Your task to perform on an android device: Open network settings Image 0: 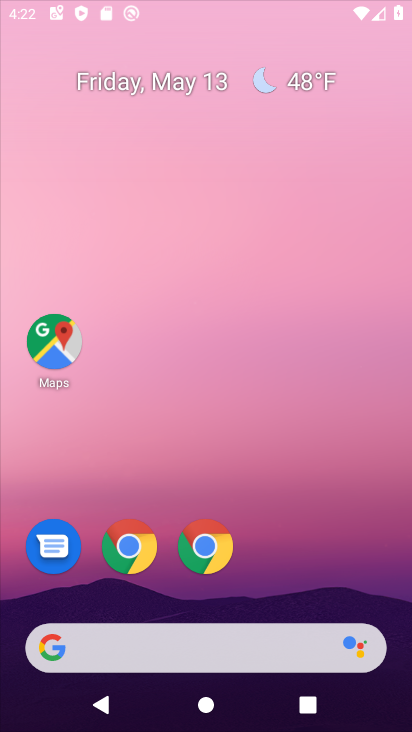
Step 0: press back button
Your task to perform on an android device: Open network settings Image 1: 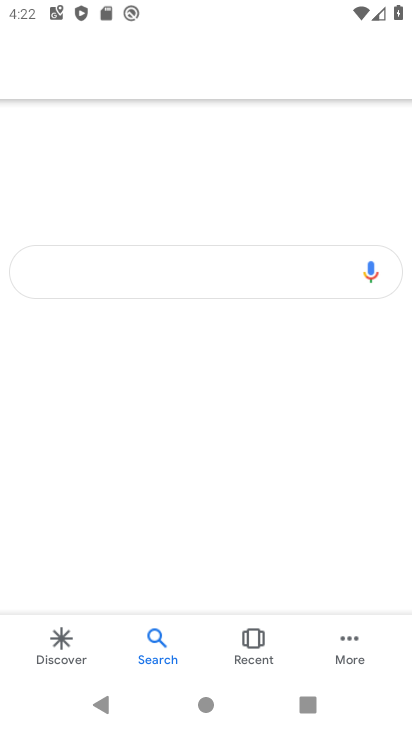
Step 1: press home button
Your task to perform on an android device: Open network settings Image 2: 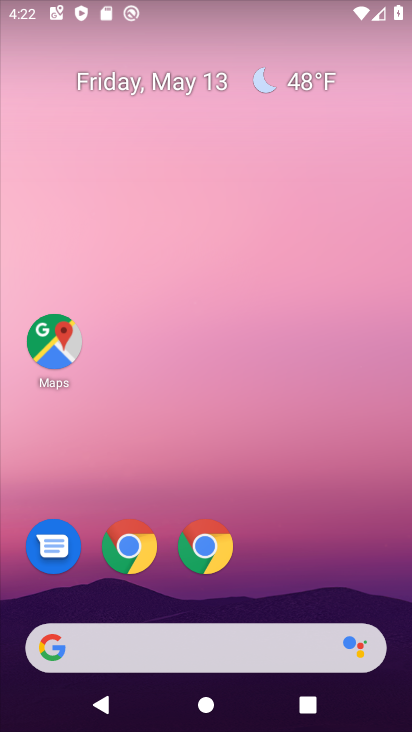
Step 2: drag from (291, 623) to (196, 122)
Your task to perform on an android device: Open network settings Image 3: 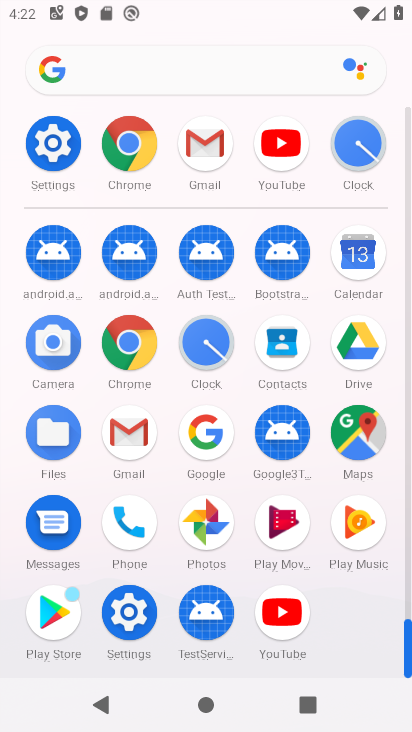
Step 3: click (67, 136)
Your task to perform on an android device: Open network settings Image 4: 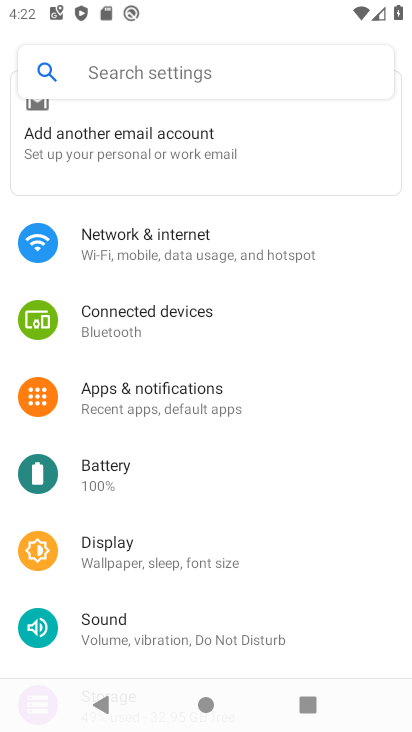
Step 4: click (152, 250)
Your task to perform on an android device: Open network settings Image 5: 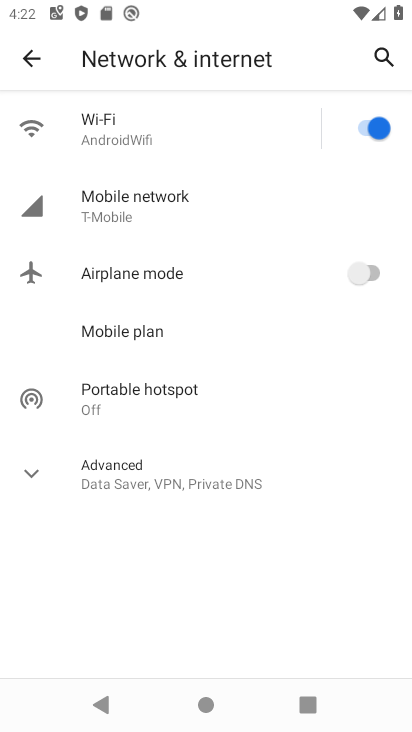
Step 5: task complete